Your task to perform on an android device: Search for flights from NYC to Tokyo Image 0: 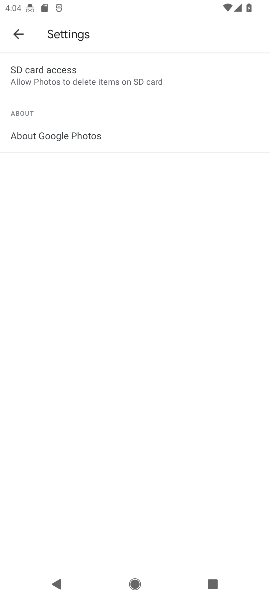
Step 0: press home button
Your task to perform on an android device: Search for flights from NYC to Tokyo Image 1: 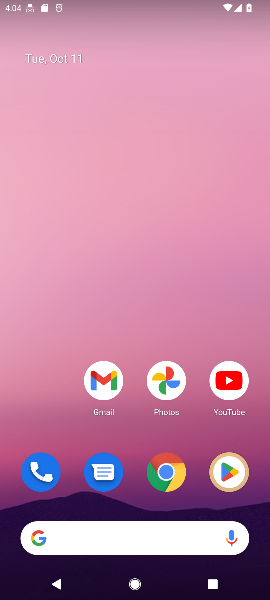
Step 1: click (168, 470)
Your task to perform on an android device: Search for flights from NYC to Tokyo Image 2: 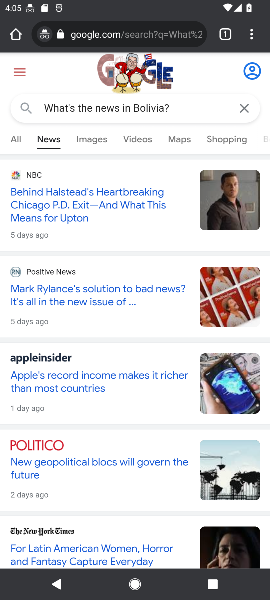
Step 2: click (97, 39)
Your task to perform on an android device: Search for flights from NYC to Tokyo Image 3: 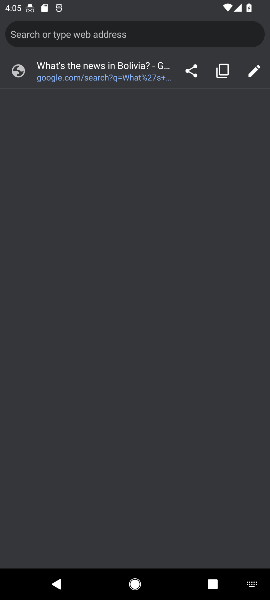
Step 3: type "Search for flights from NYC to Tokyo"
Your task to perform on an android device: Search for flights from NYC to Tokyo Image 4: 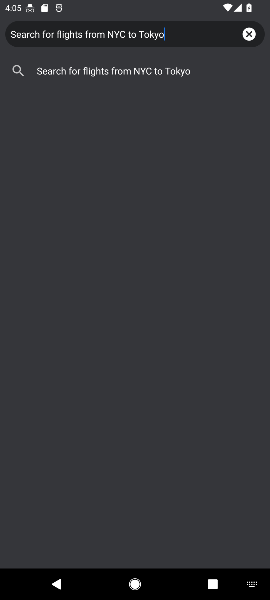
Step 4: click (148, 67)
Your task to perform on an android device: Search for flights from NYC to Tokyo Image 5: 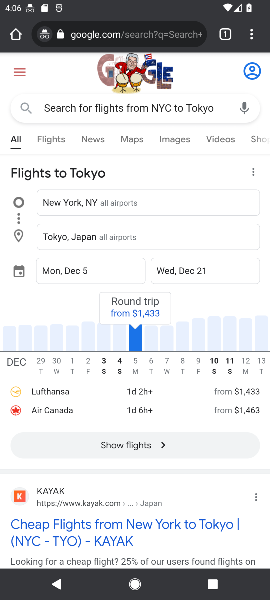
Step 5: click (52, 139)
Your task to perform on an android device: Search for flights from NYC to Tokyo Image 6: 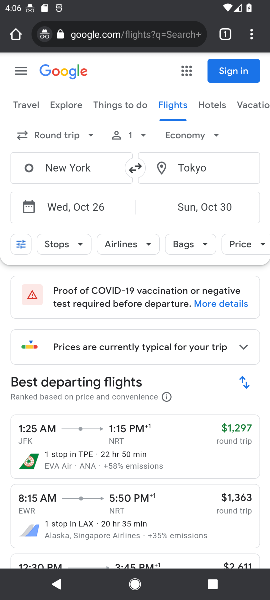
Step 6: task complete